Your task to perform on an android device: Open ESPN.com Image 0: 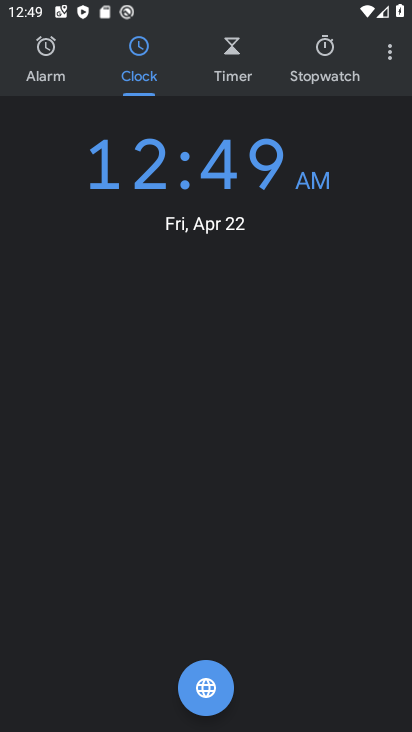
Step 0: press home button
Your task to perform on an android device: Open ESPN.com Image 1: 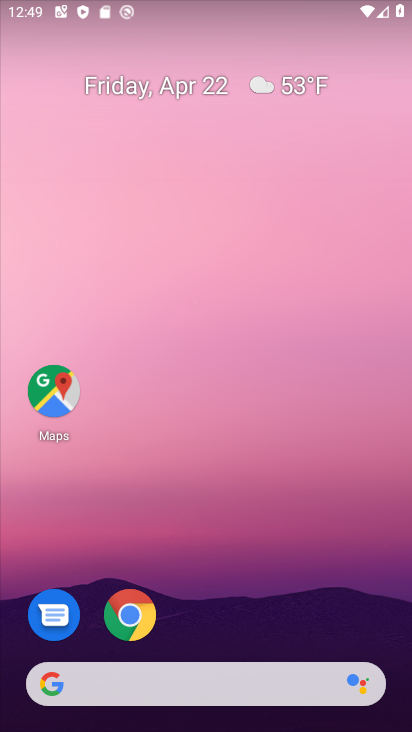
Step 1: click (136, 619)
Your task to perform on an android device: Open ESPN.com Image 2: 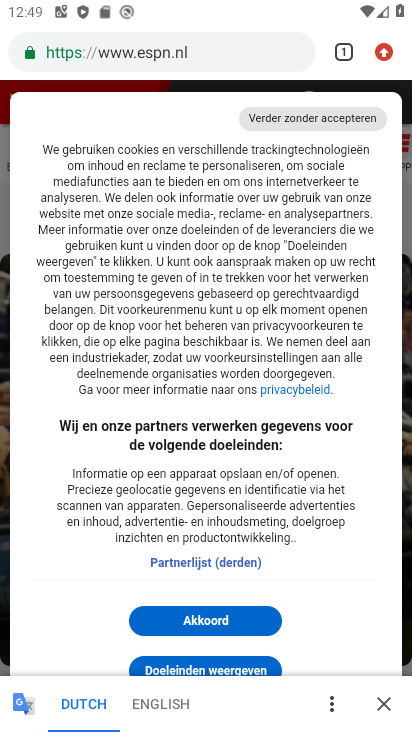
Step 2: task complete